Your task to perform on an android device: Open wifi settings Image 0: 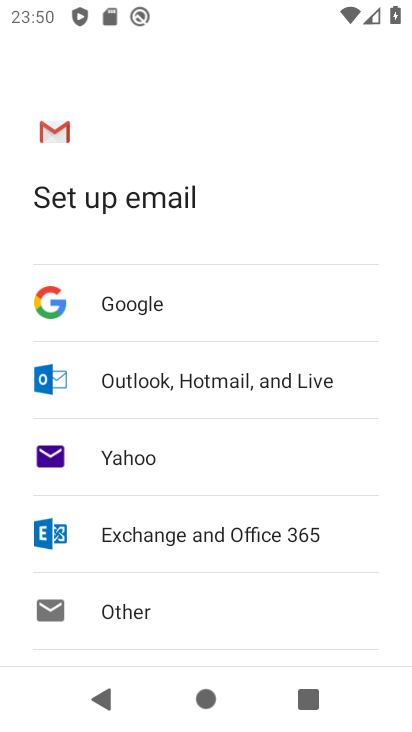
Step 0: press home button
Your task to perform on an android device: Open wifi settings Image 1: 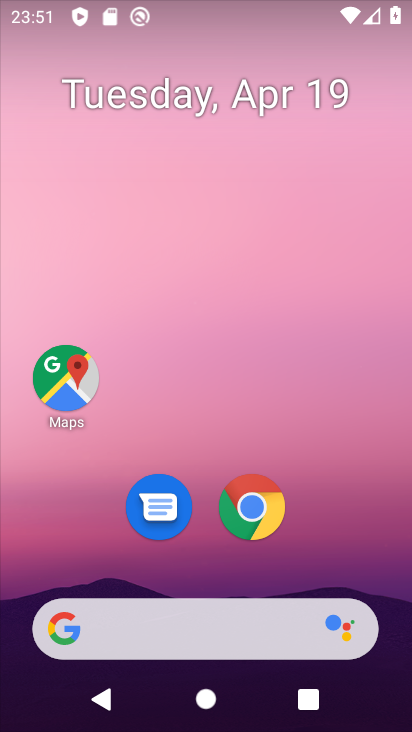
Step 1: drag from (193, 450) to (189, 19)
Your task to perform on an android device: Open wifi settings Image 2: 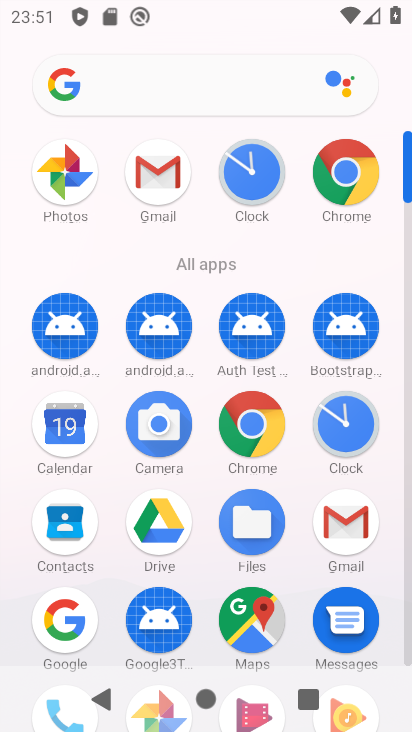
Step 2: drag from (203, 625) to (180, 155)
Your task to perform on an android device: Open wifi settings Image 3: 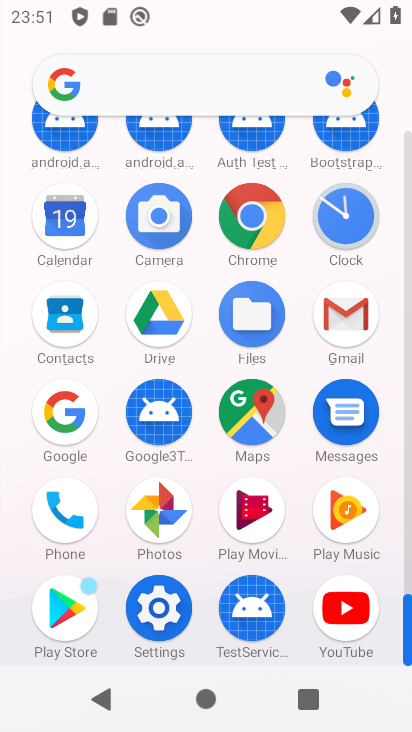
Step 3: click (152, 603)
Your task to perform on an android device: Open wifi settings Image 4: 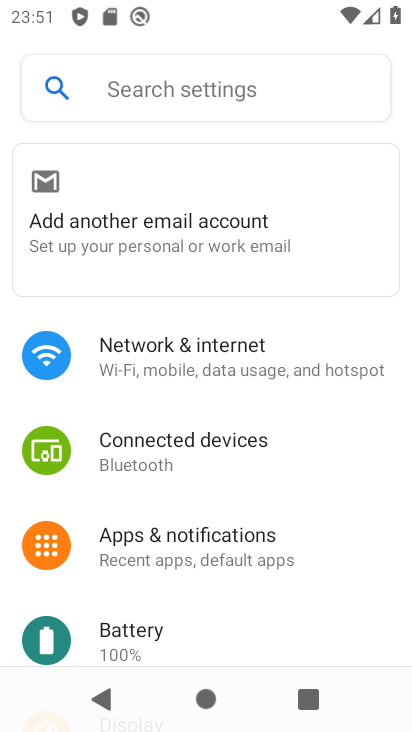
Step 4: click (177, 345)
Your task to perform on an android device: Open wifi settings Image 5: 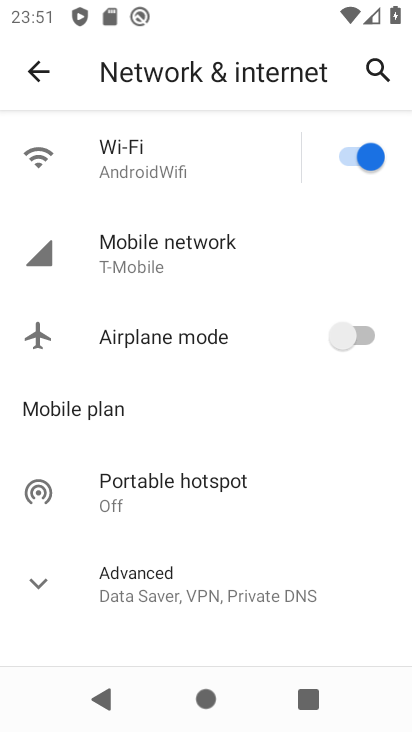
Step 5: click (113, 147)
Your task to perform on an android device: Open wifi settings Image 6: 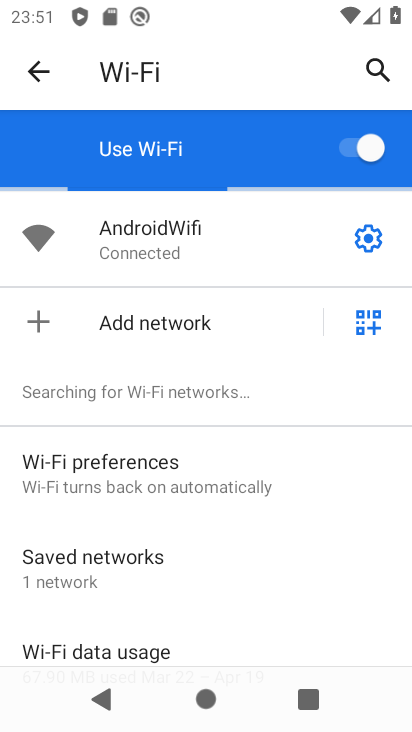
Step 6: task complete